Your task to perform on an android device: Go to accessibility settings Image 0: 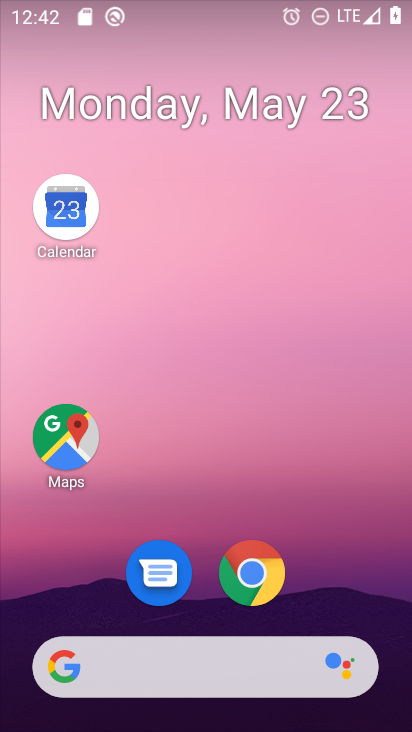
Step 0: drag from (334, 588) to (307, 74)
Your task to perform on an android device: Go to accessibility settings Image 1: 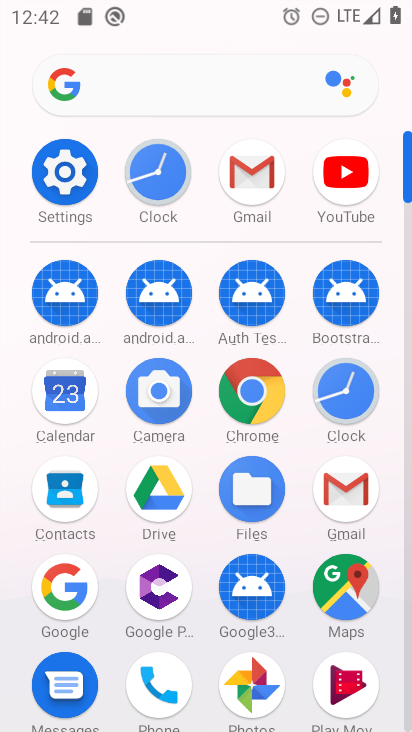
Step 1: click (53, 169)
Your task to perform on an android device: Go to accessibility settings Image 2: 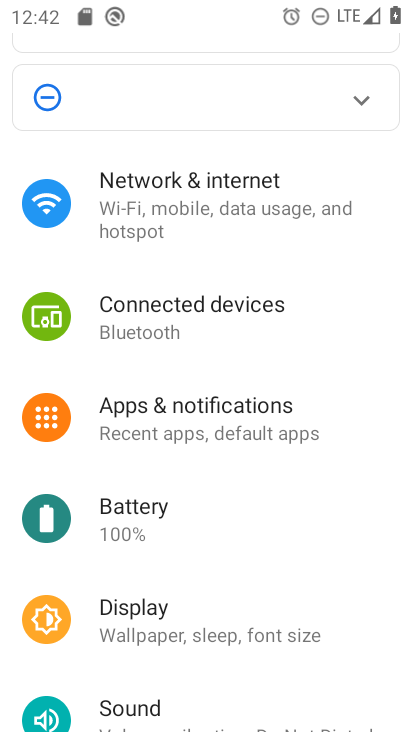
Step 2: drag from (220, 634) to (231, 341)
Your task to perform on an android device: Go to accessibility settings Image 3: 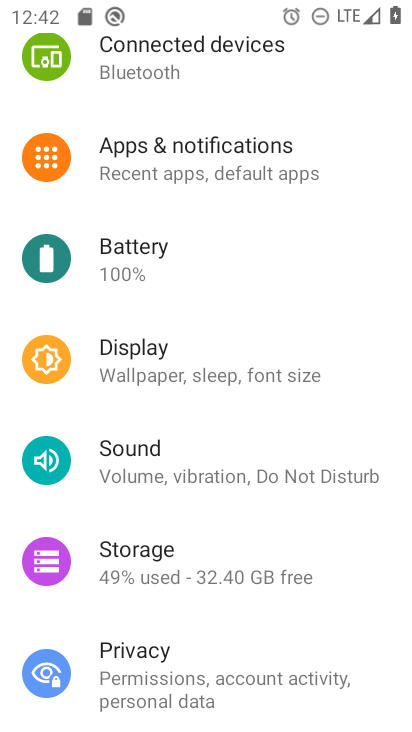
Step 3: drag from (233, 616) to (272, 293)
Your task to perform on an android device: Go to accessibility settings Image 4: 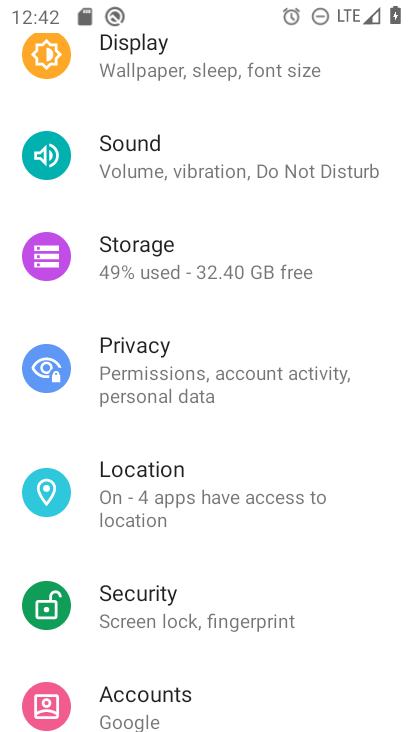
Step 4: drag from (278, 611) to (292, 410)
Your task to perform on an android device: Go to accessibility settings Image 5: 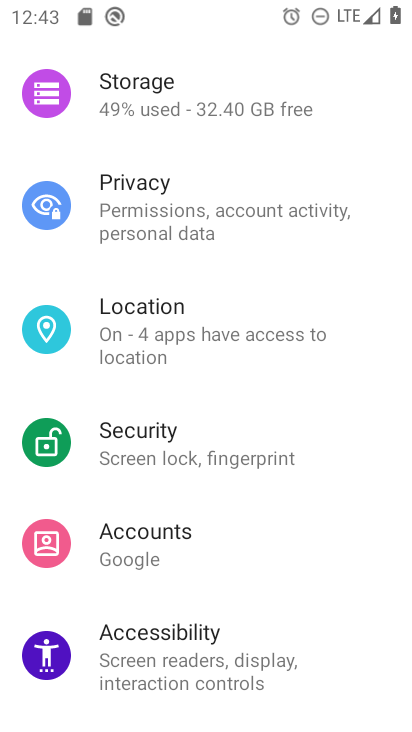
Step 5: click (194, 645)
Your task to perform on an android device: Go to accessibility settings Image 6: 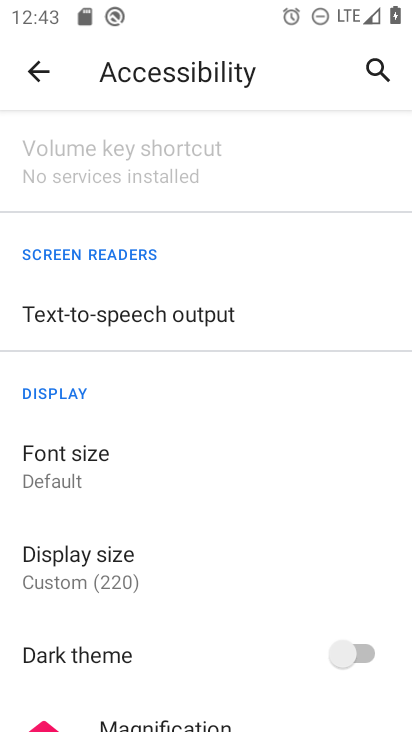
Step 6: task complete